Your task to perform on an android device: show emergency info Image 0: 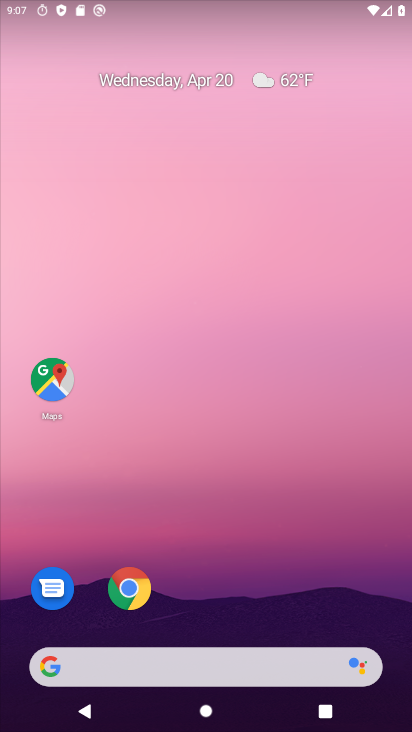
Step 0: drag from (229, 500) to (171, 21)
Your task to perform on an android device: show emergency info Image 1: 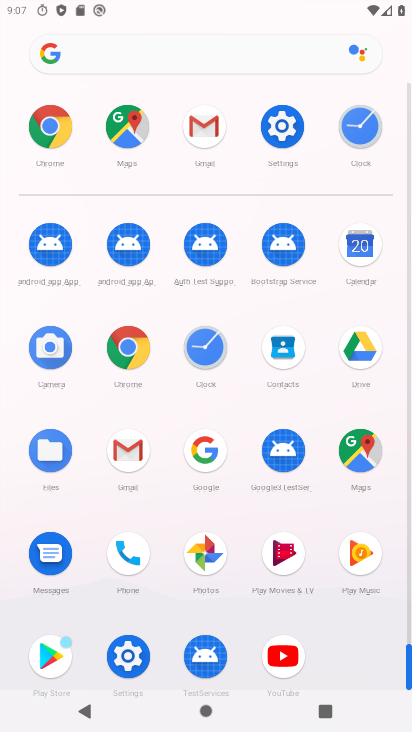
Step 1: click (129, 654)
Your task to perform on an android device: show emergency info Image 2: 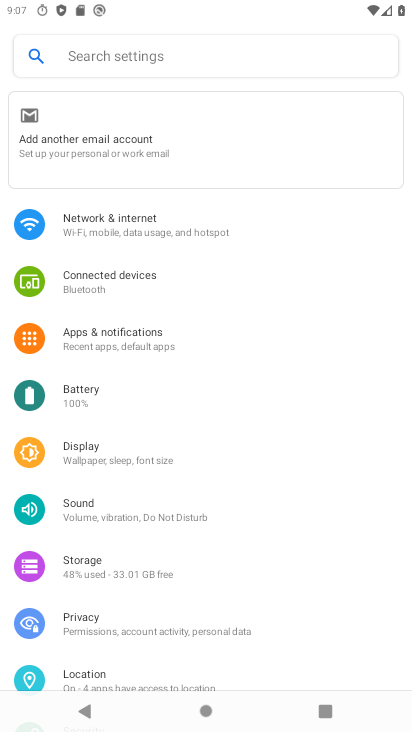
Step 2: drag from (253, 489) to (322, 8)
Your task to perform on an android device: show emergency info Image 3: 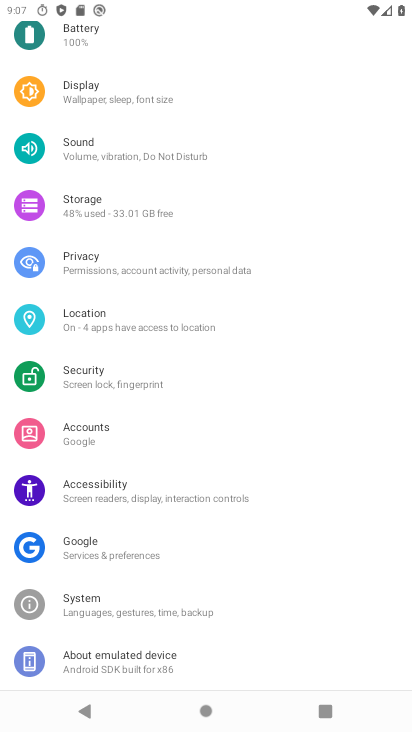
Step 3: drag from (236, 547) to (227, 250)
Your task to perform on an android device: show emergency info Image 4: 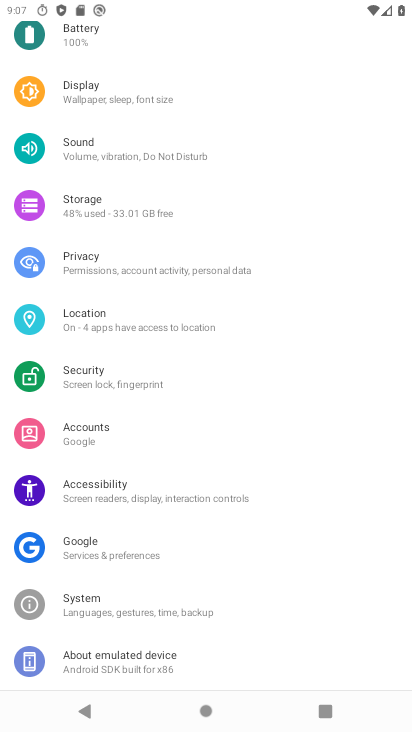
Step 4: click (148, 638)
Your task to perform on an android device: show emergency info Image 5: 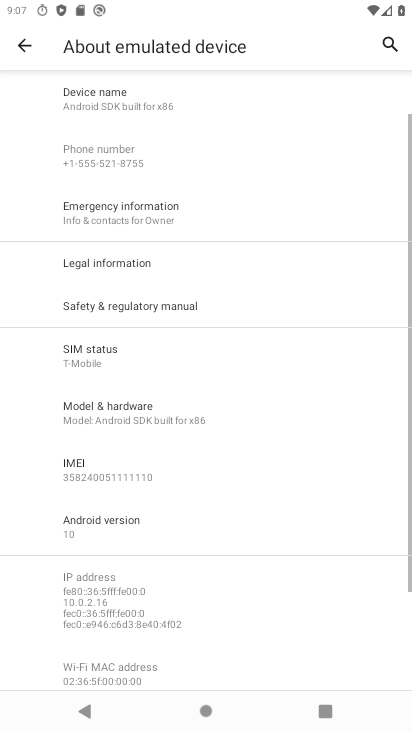
Step 5: drag from (276, 380) to (281, 229)
Your task to perform on an android device: show emergency info Image 6: 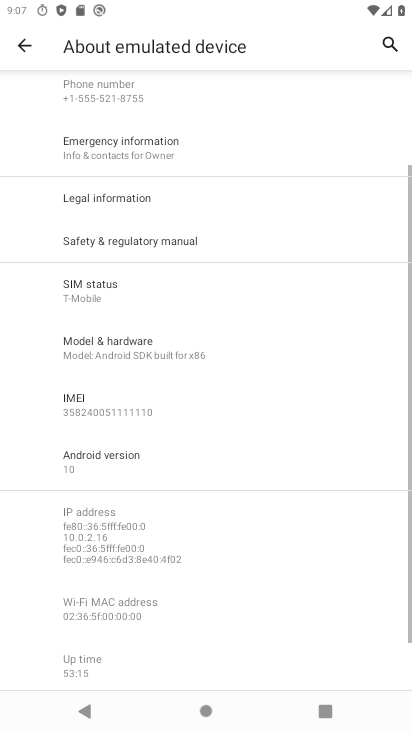
Step 6: drag from (206, 434) to (228, 302)
Your task to perform on an android device: show emergency info Image 7: 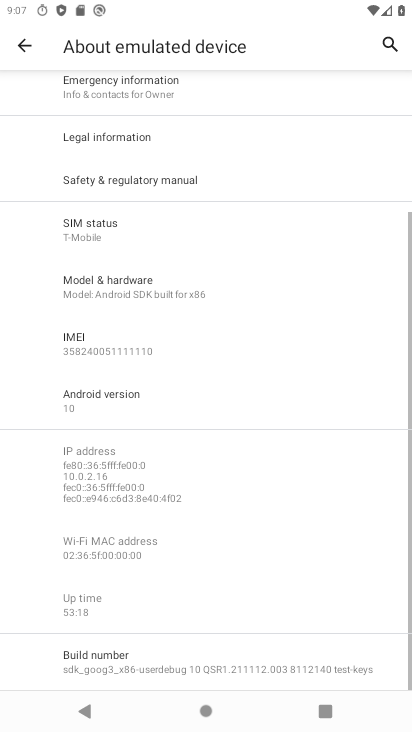
Step 7: click (186, 87)
Your task to perform on an android device: show emergency info Image 8: 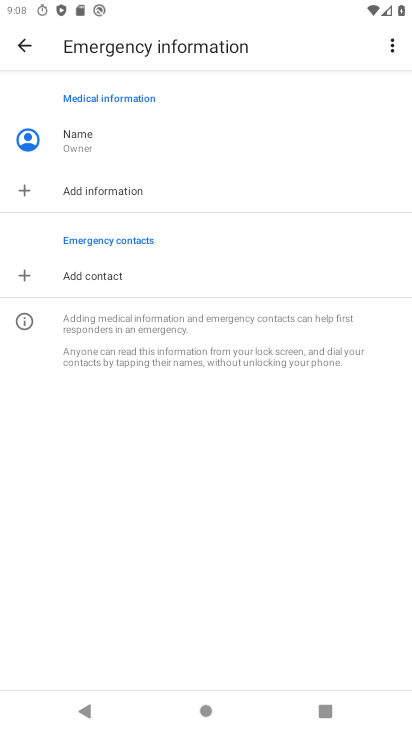
Step 8: task complete